Your task to perform on an android device: Open Reddit.com Image 0: 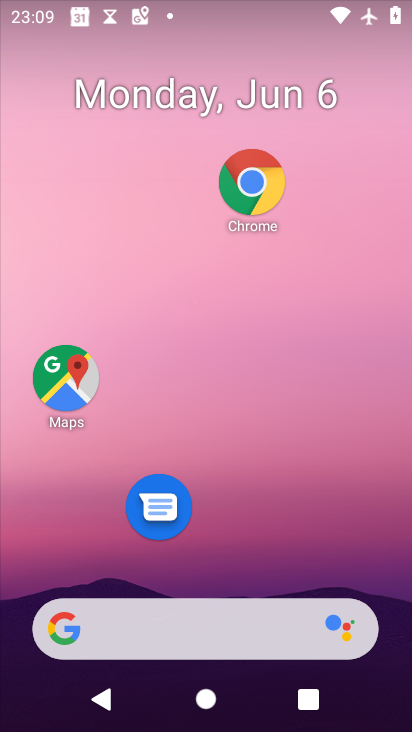
Step 0: click (249, 180)
Your task to perform on an android device: Open Reddit.com Image 1: 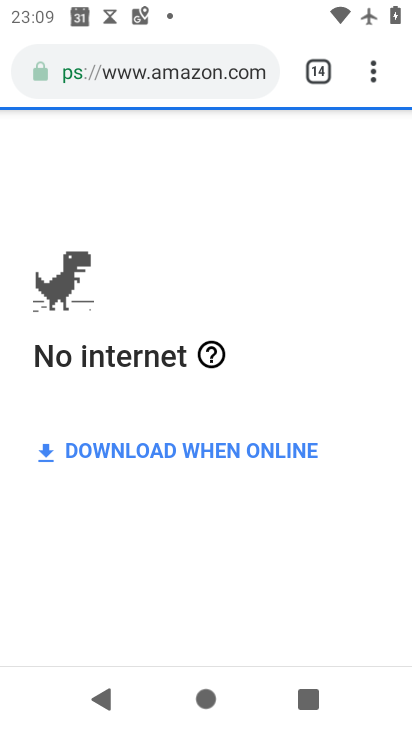
Step 1: click (376, 58)
Your task to perform on an android device: Open Reddit.com Image 2: 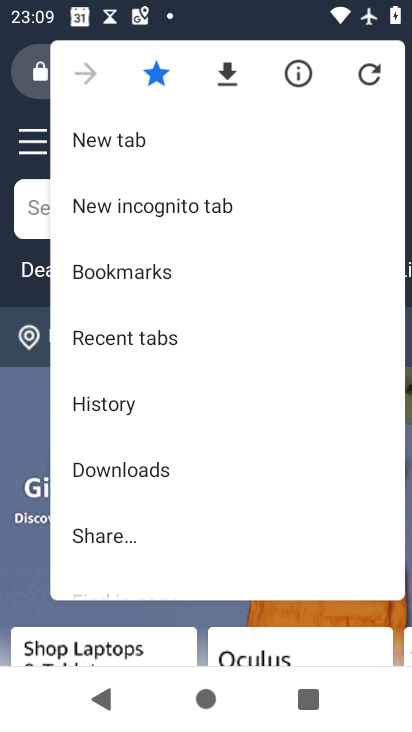
Step 2: click (128, 147)
Your task to perform on an android device: Open Reddit.com Image 3: 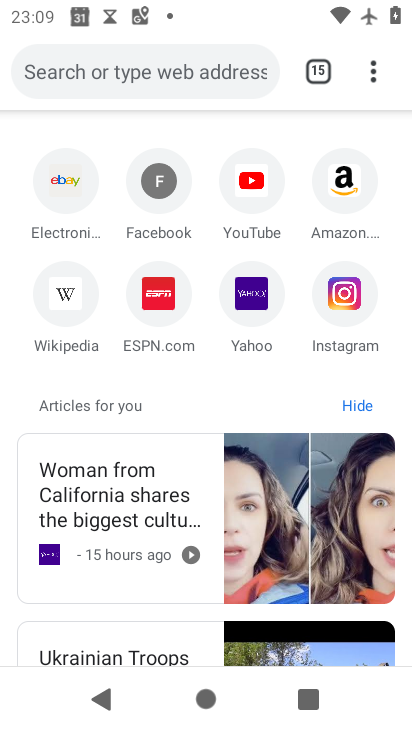
Step 3: click (187, 60)
Your task to perform on an android device: Open Reddit.com Image 4: 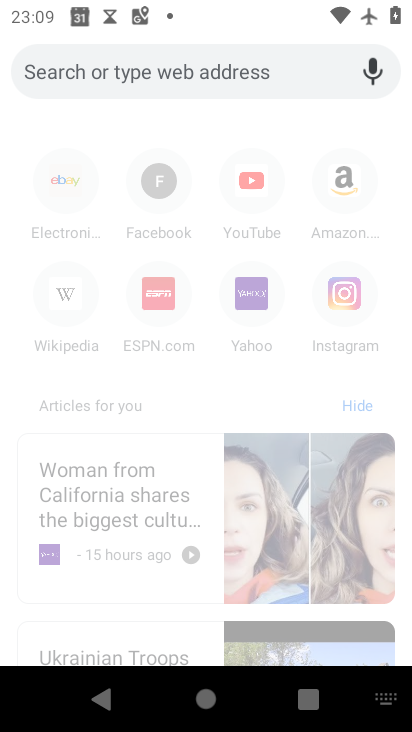
Step 4: type "Reddit.com"
Your task to perform on an android device: Open Reddit.com Image 5: 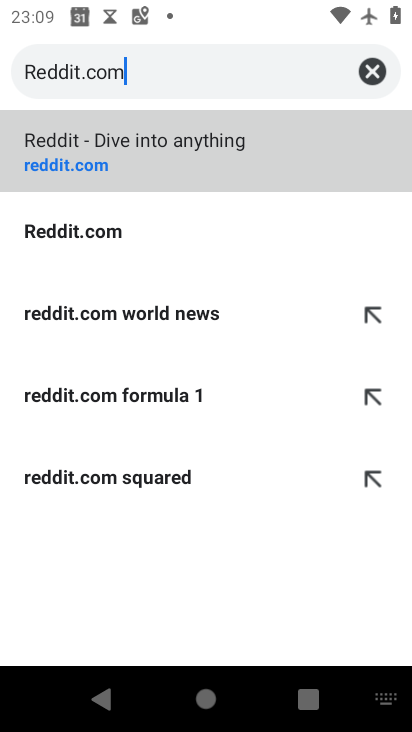
Step 5: click (285, 147)
Your task to perform on an android device: Open Reddit.com Image 6: 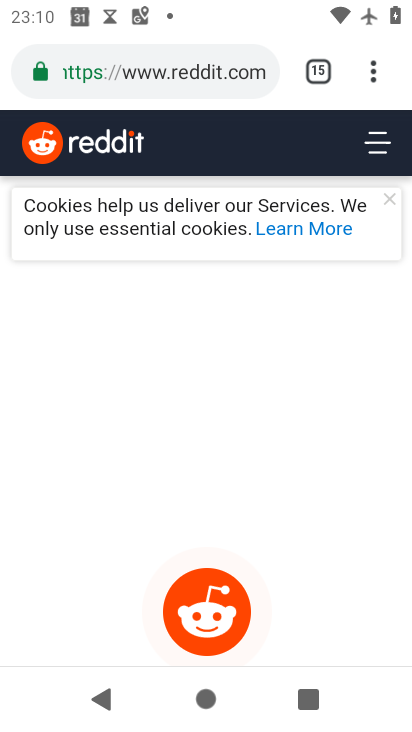
Step 6: task complete